Your task to perform on an android device: Open calendar and show me the fourth week of next month Image 0: 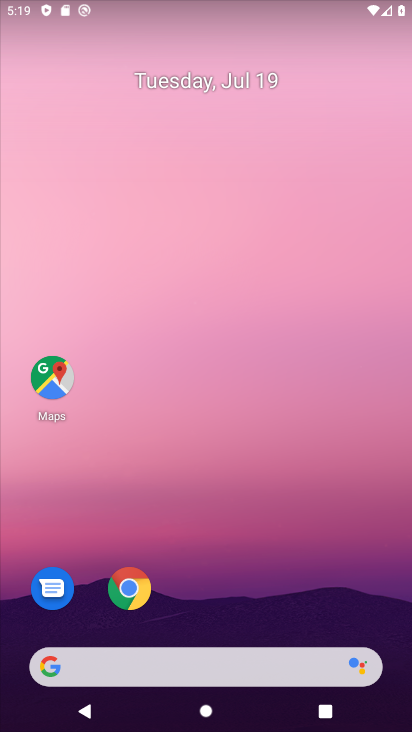
Step 0: click (168, 92)
Your task to perform on an android device: Open calendar and show me the fourth week of next month Image 1: 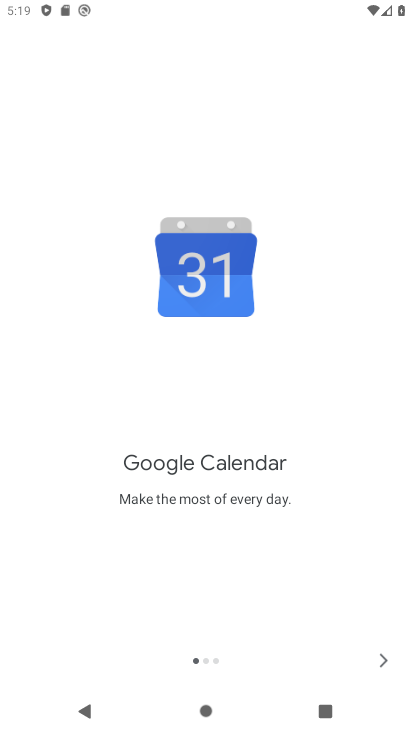
Step 1: click (383, 659)
Your task to perform on an android device: Open calendar and show me the fourth week of next month Image 2: 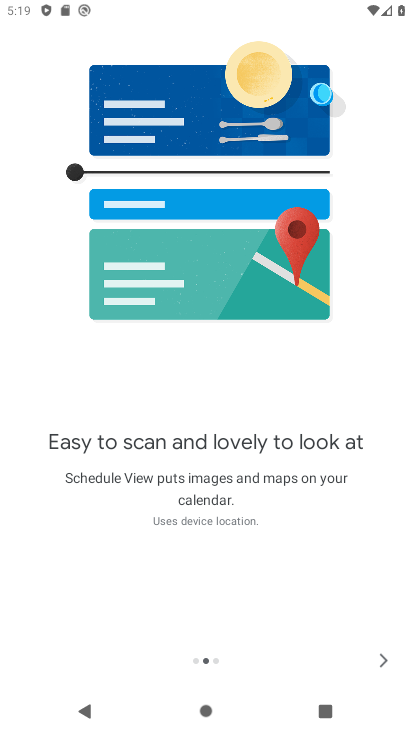
Step 2: click (383, 659)
Your task to perform on an android device: Open calendar and show me the fourth week of next month Image 3: 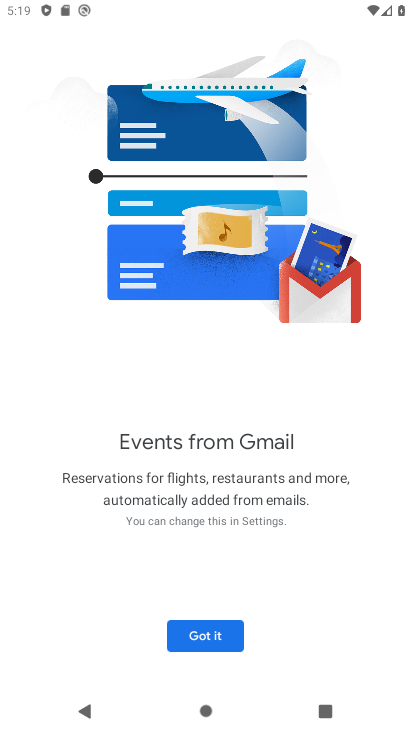
Step 3: click (194, 626)
Your task to perform on an android device: Open calendar and show me the fourth week of next month Image 4: 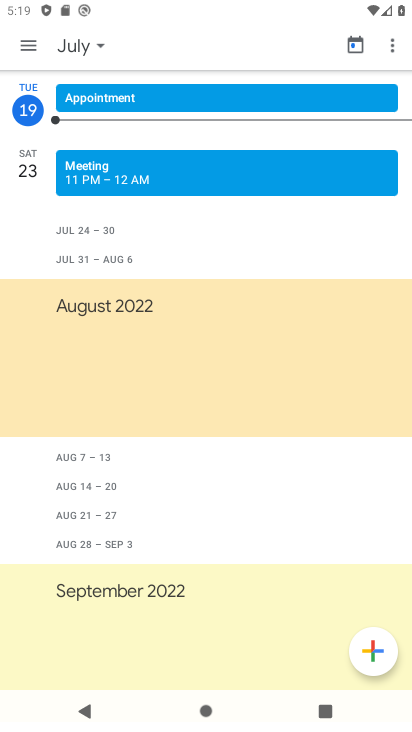
Step 4: click (73, 50)
Your task to perform on an android device: Open calendar and show me the fourth week of next month Image 5: 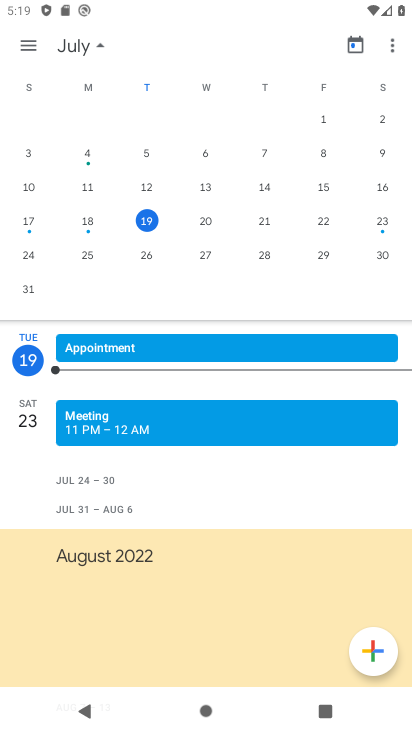
Step 5: drag from (326, 285) to (26, 266)
Your task to perform on an android device: Open calendar and show me the fourth week of next month Image 6: 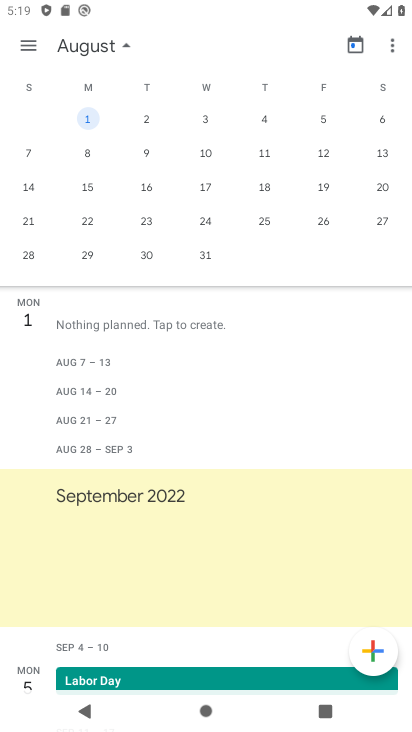
Step 6: click (89, 219)
Your task to perform on an android device: Open calendar and show me the fourth week of next month Image 7: 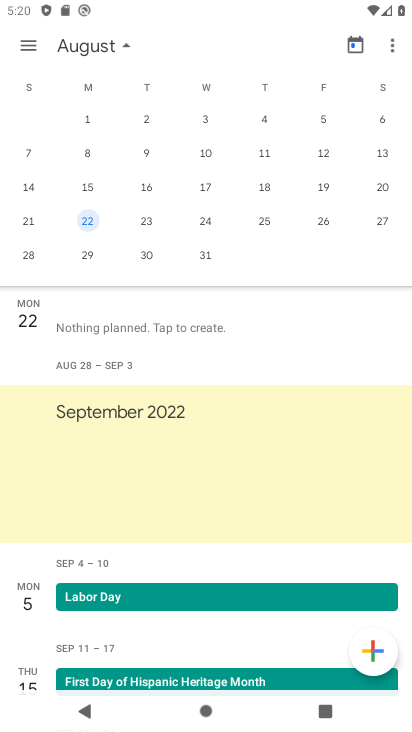
Step 7: task complete